Your task to perform on an android device: Open notification settings Image 0: 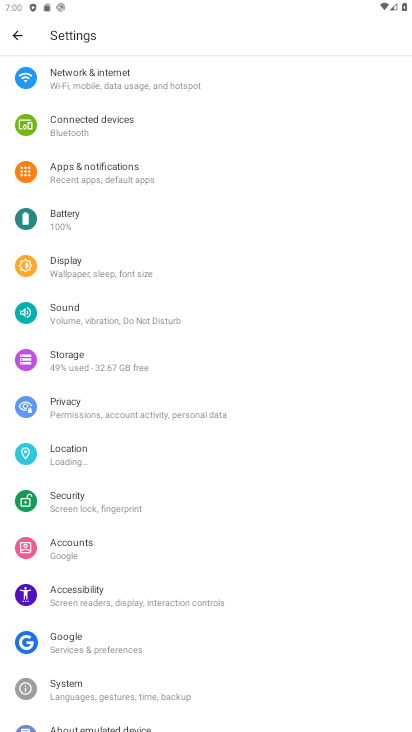
Step 0: press home button
Your task to perform on an android device: Open notification settings Image 1: 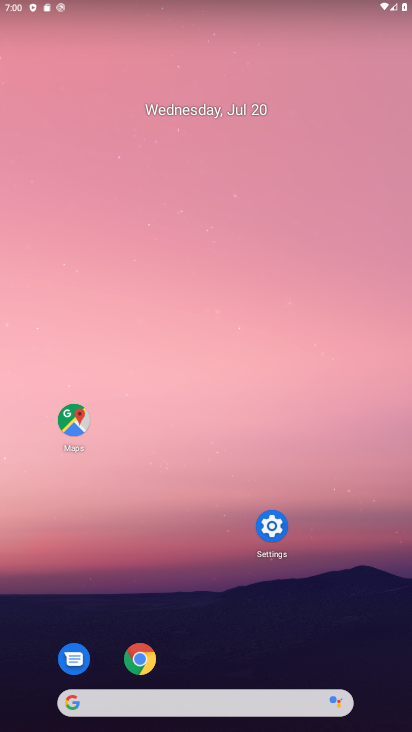
Step 1: click (272, 531)
Your task to perform on an android device: Open notification settings Image 2: 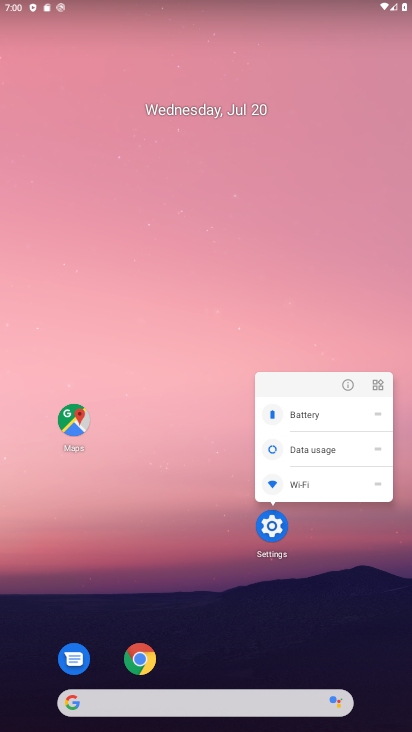
Step 2: click (272, 534)
Your task to perform on an android device: Open notification settings Image 3: 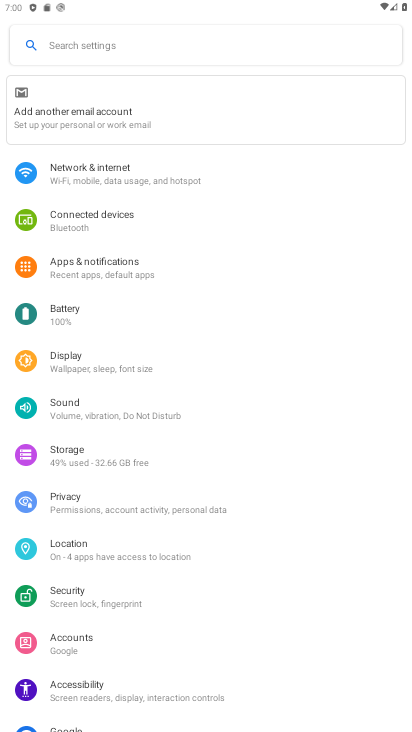
Step 3: click (128, 37)
Your task to perform on an android device: Open notification settings Image 4: 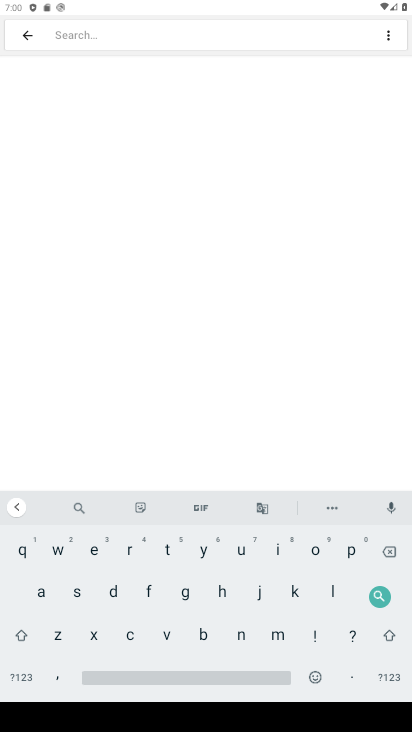
Step 4: click (241, 635)
Your task to perform on an android device: Open notification settings Image 5: 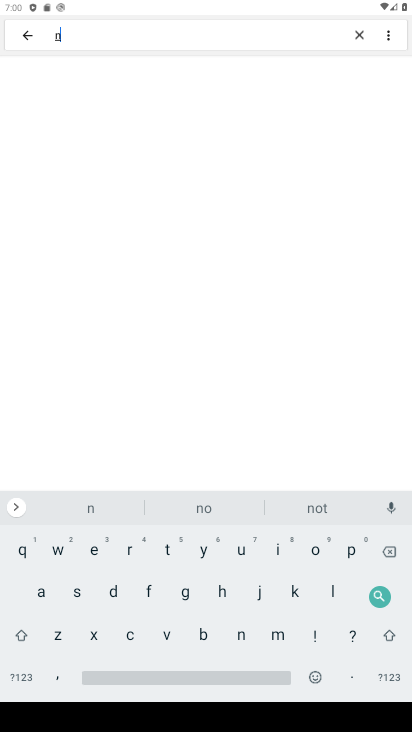
Step 5: click (318, 548)
Your task to perform on an android device: Open notification settings Image 6: 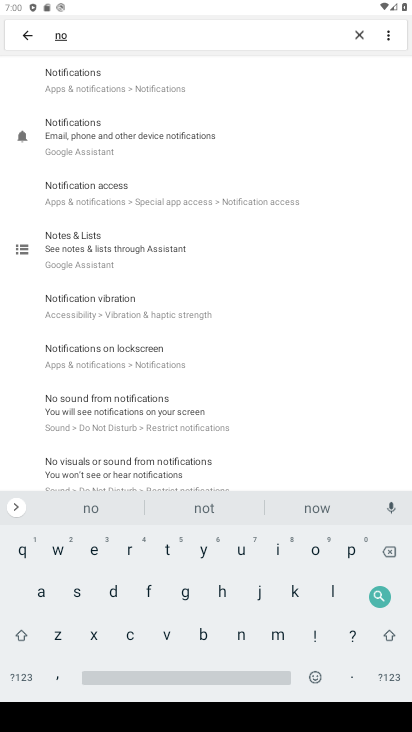
Step 6: click (164, 80)
Your task to perform on an android device: Open notification settings Image 7: 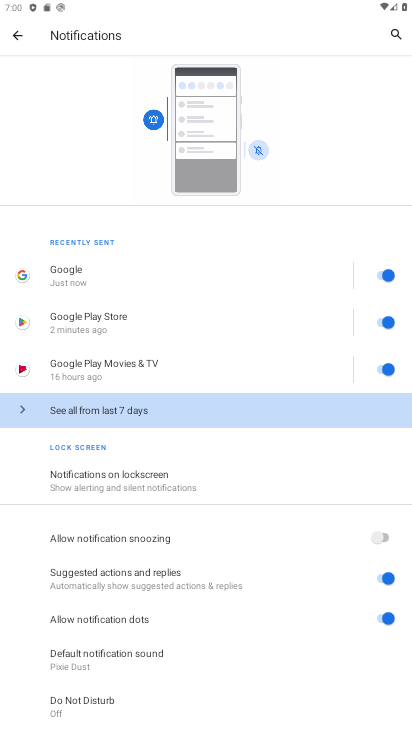
Step 7: click (98, 477)
Your task to perform on an android device: Open notification settings Image 8: 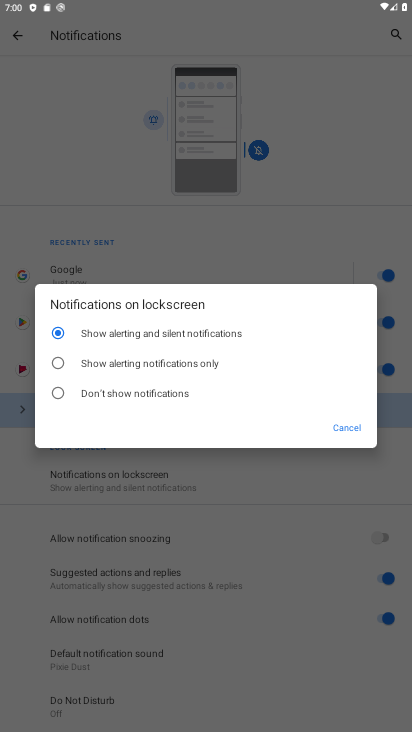
Step 8: task complete